Your task to perform on an android device: Check the news Image 0: 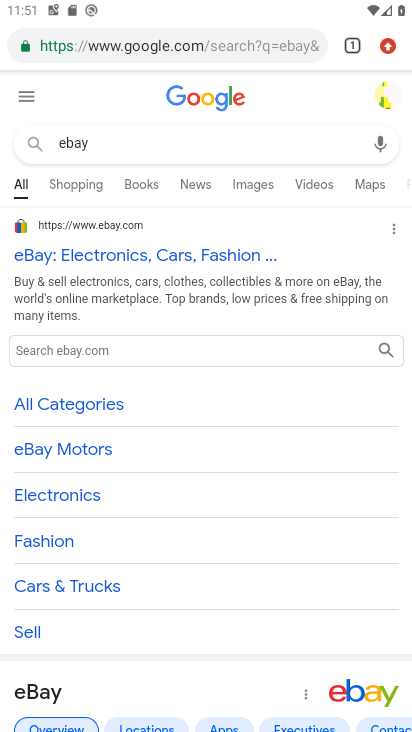
Step 0: press home button
Your task to perform on an android device: Check the news Image 1: 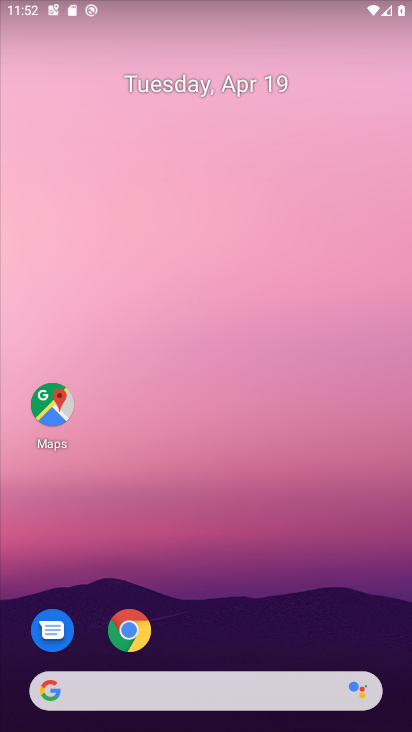
Step 1: drag from (211, 637) to (244, 72)
Your task to perform on an android device: Check the news Image 2: 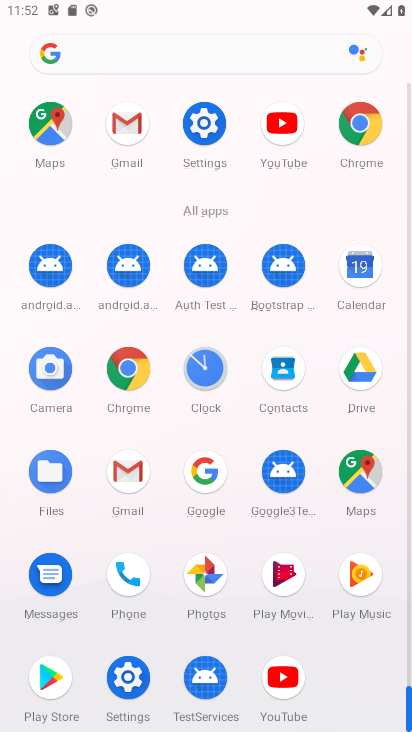
Step 2: click (136, 372)
Your task to perform on an android device: Check the news Image 3: 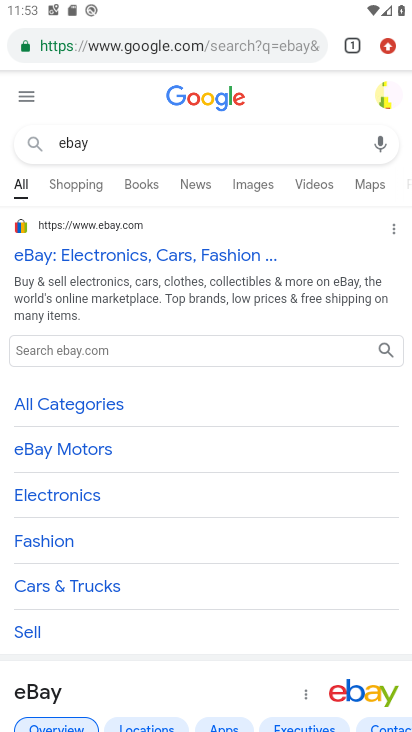
Step 3: click (252, 142)
Your task to perform on an android device: Check the news Image 4: 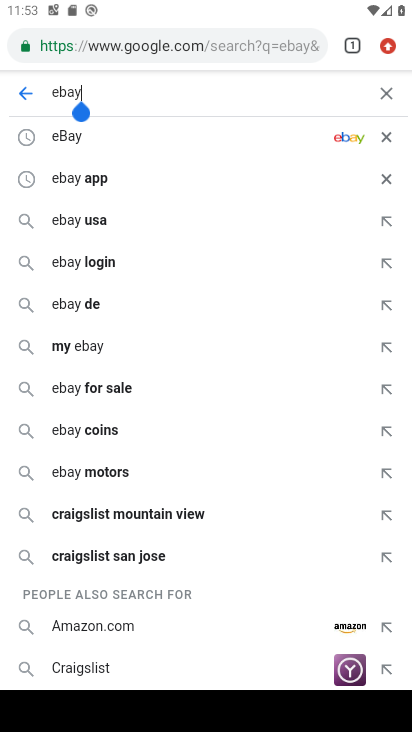
Step 4: click (386, 92)
Your task to perform on an android device: Check the news Image 5: 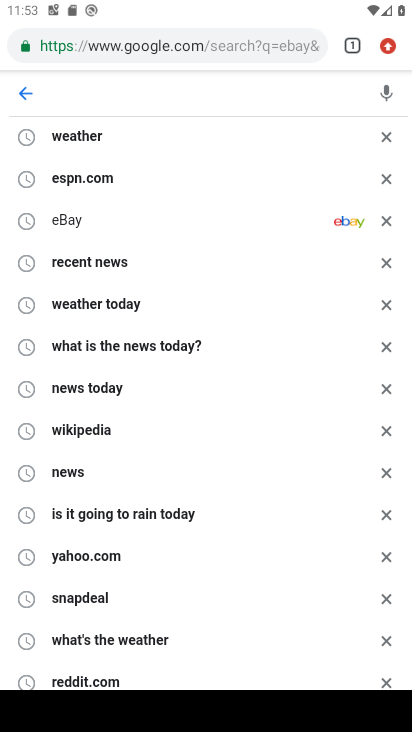
Step 5: type " news"
Your task to perform on an android device: Check the news Image 6: 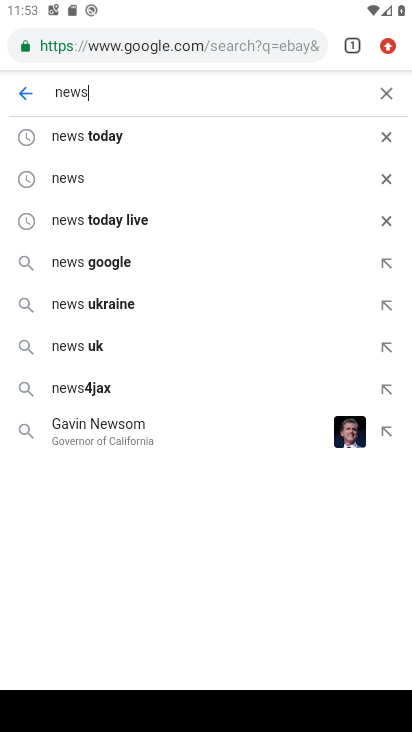
Step 6: click (110, 135)
Your task to perform on an android device: Check the news Image 7: 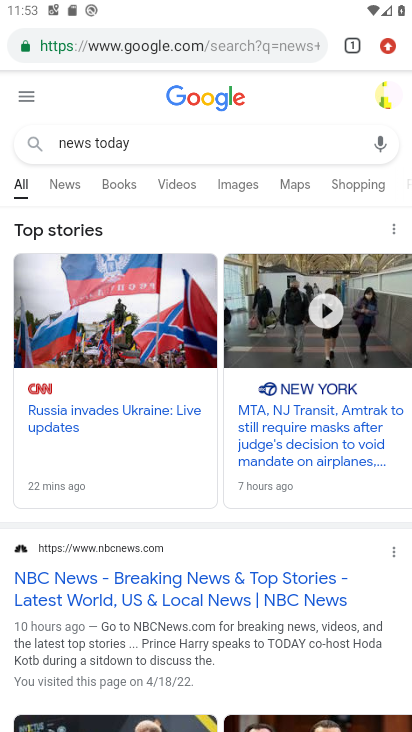
Step 7: click (57, 178)
Your task to perform on an android device: Check the news Image 8: 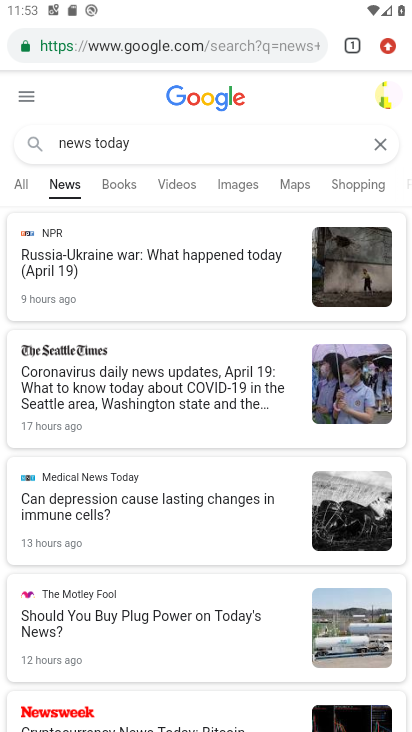
Step 8: task complete